Your task to perform on an android device: change notifications settings Image 0: 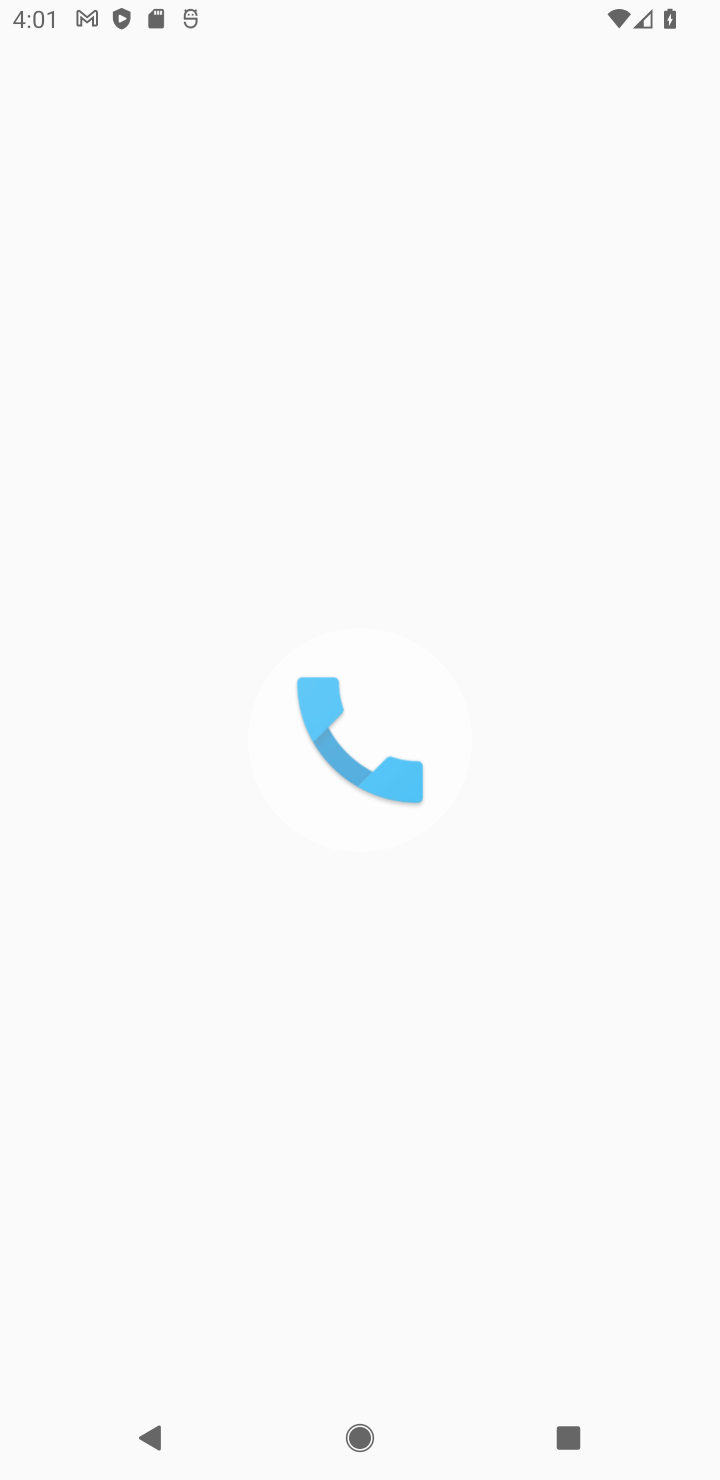
Step 0: click (586, 223)
Your task to perform on an android device: change notifications settings Image 1: 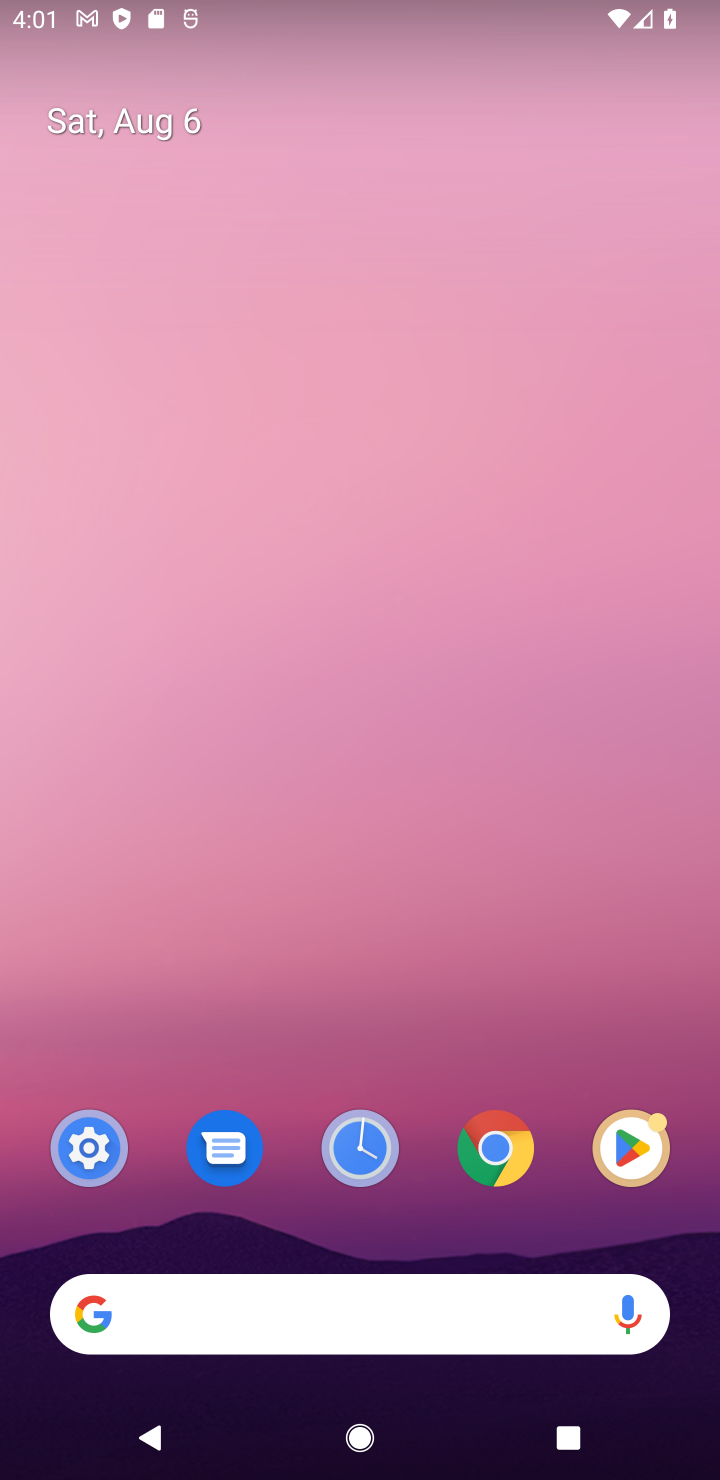
Step 1: drag from (327, 1067) to (524, 274)
Your task to perform on an android device: change notifications settings Image 2: 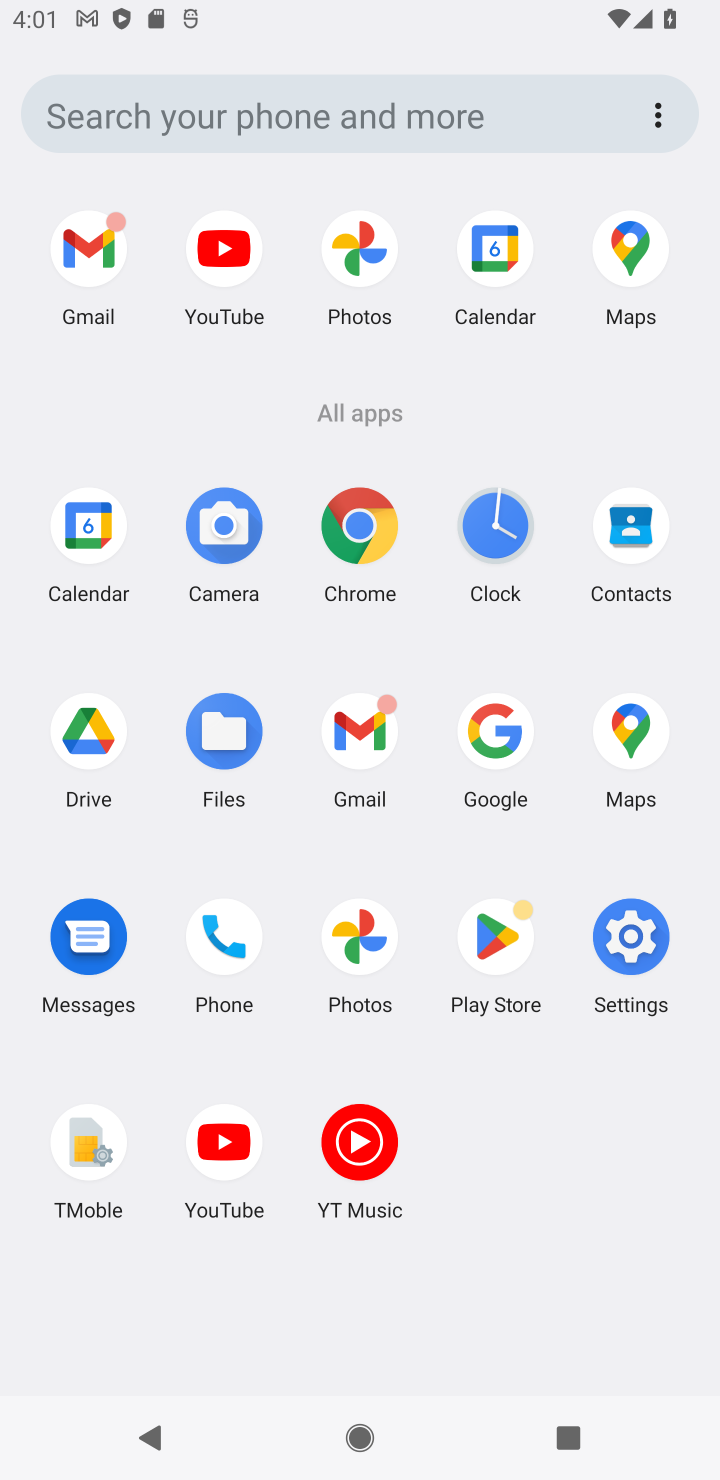
Step 2: click (617, 934)
Your task to perform on an android device: change notifications settings Image 3: 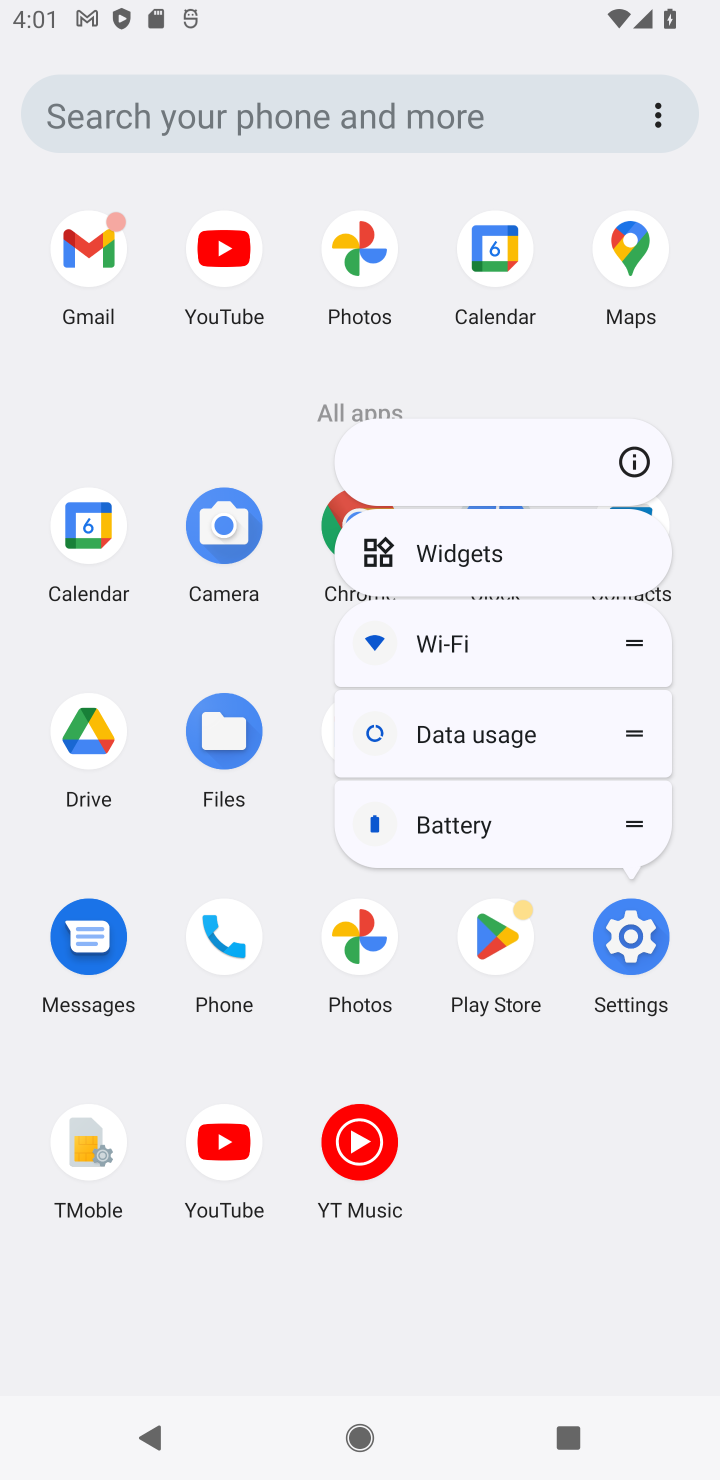
Step 3: click (633, 438)
Your task to perform on an android device: change notifications settings Image 4: 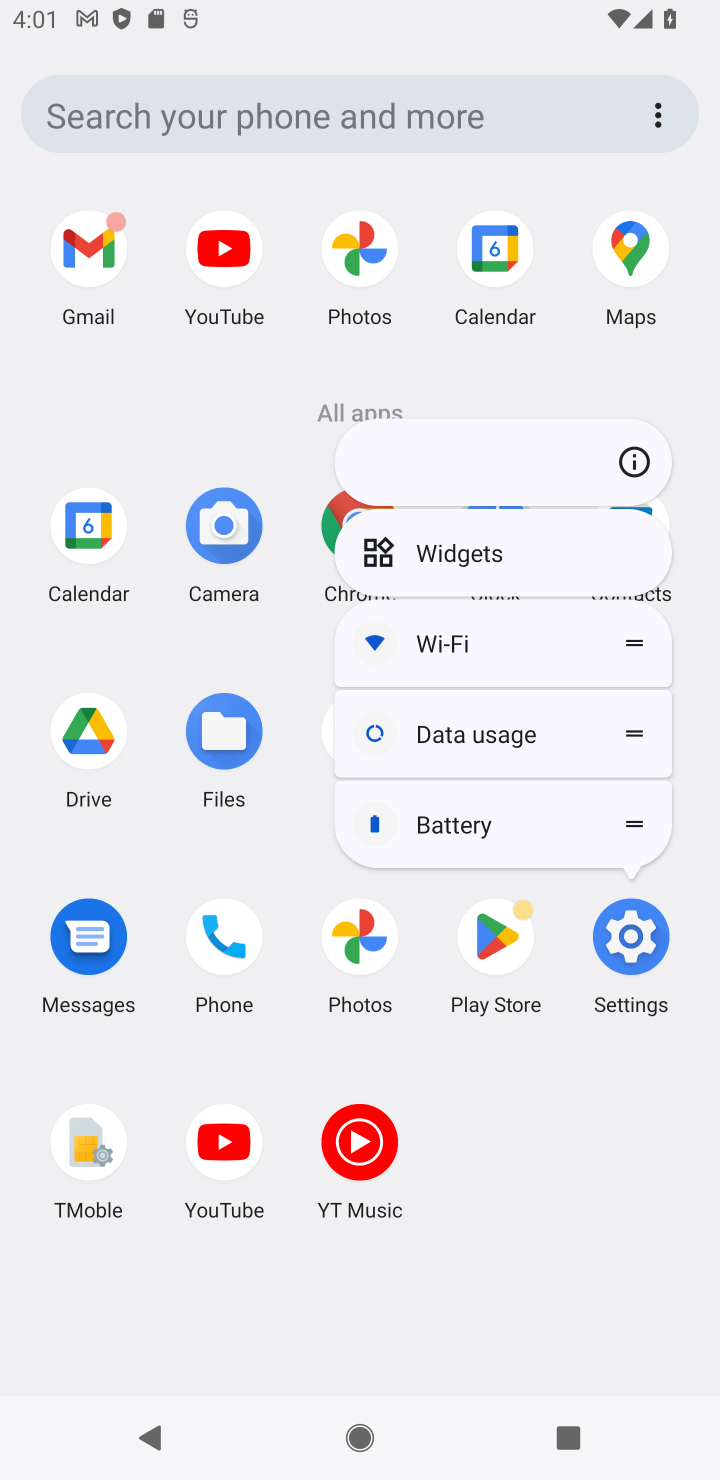
Step 4: click (648, 455)
Your task to perform on an android device: change notifications settings Image 5: 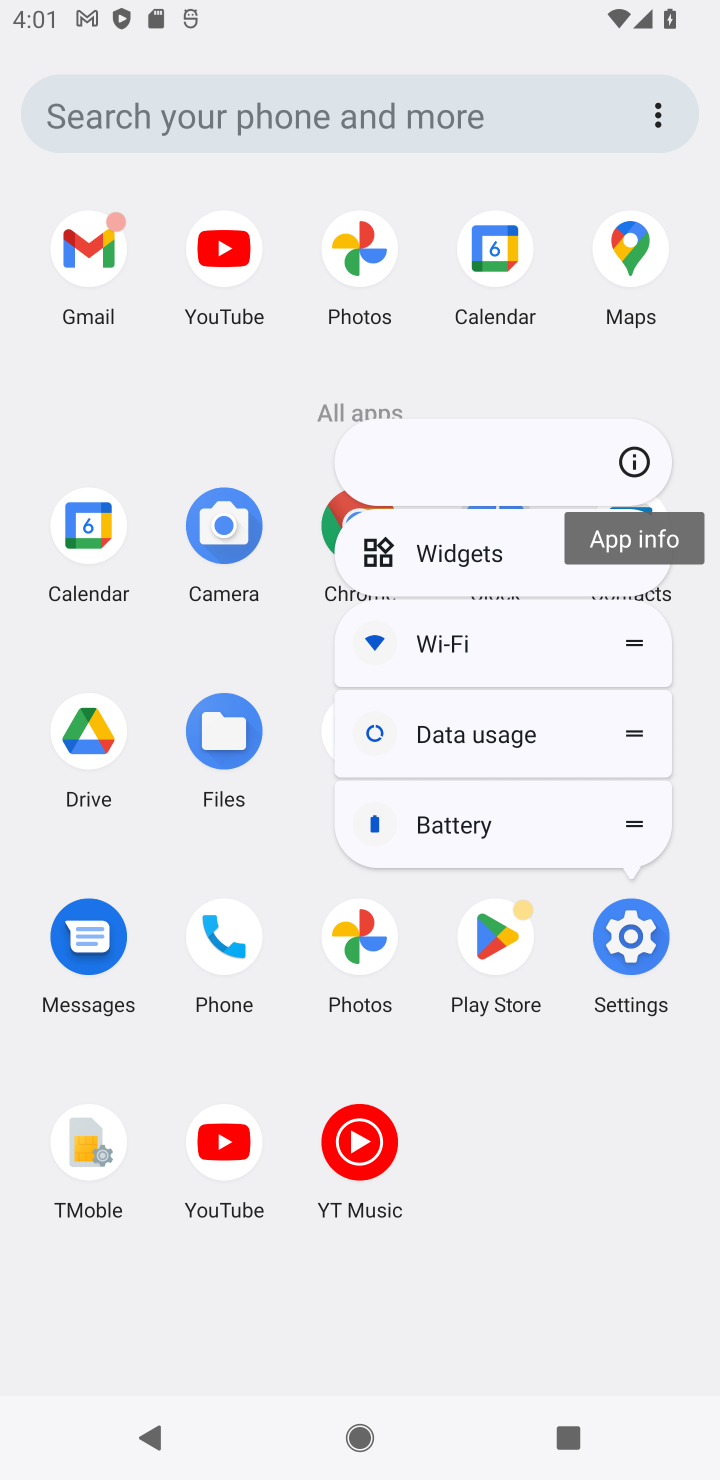
Step 5: click (631, 453)
Your task to perform on an android device: change notifications settings Image 6: 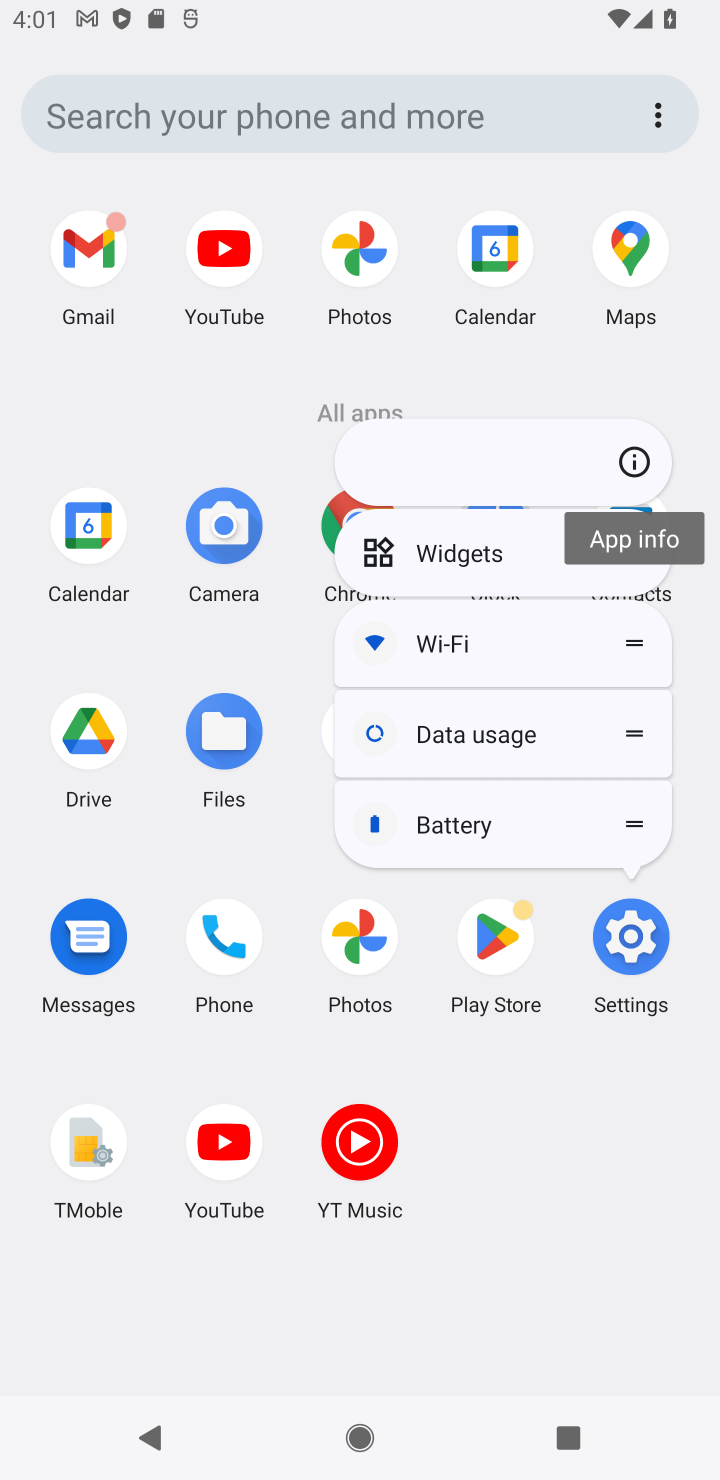
Step 6: click (631, 453)
Your task to perform on an android device: change notifications settings Image 7: 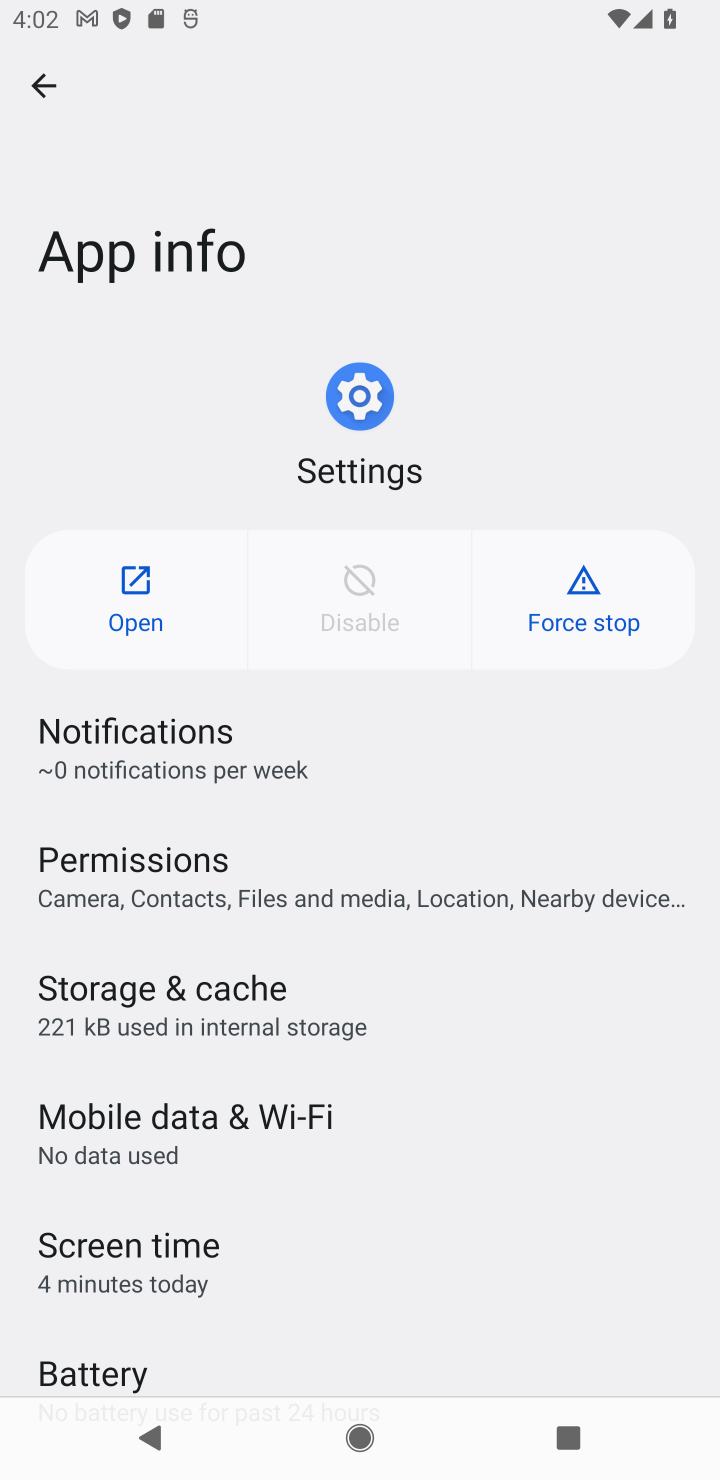
Step 7: click (122, 618)
Your task to perform on an android device: change notifications settings Image 8: 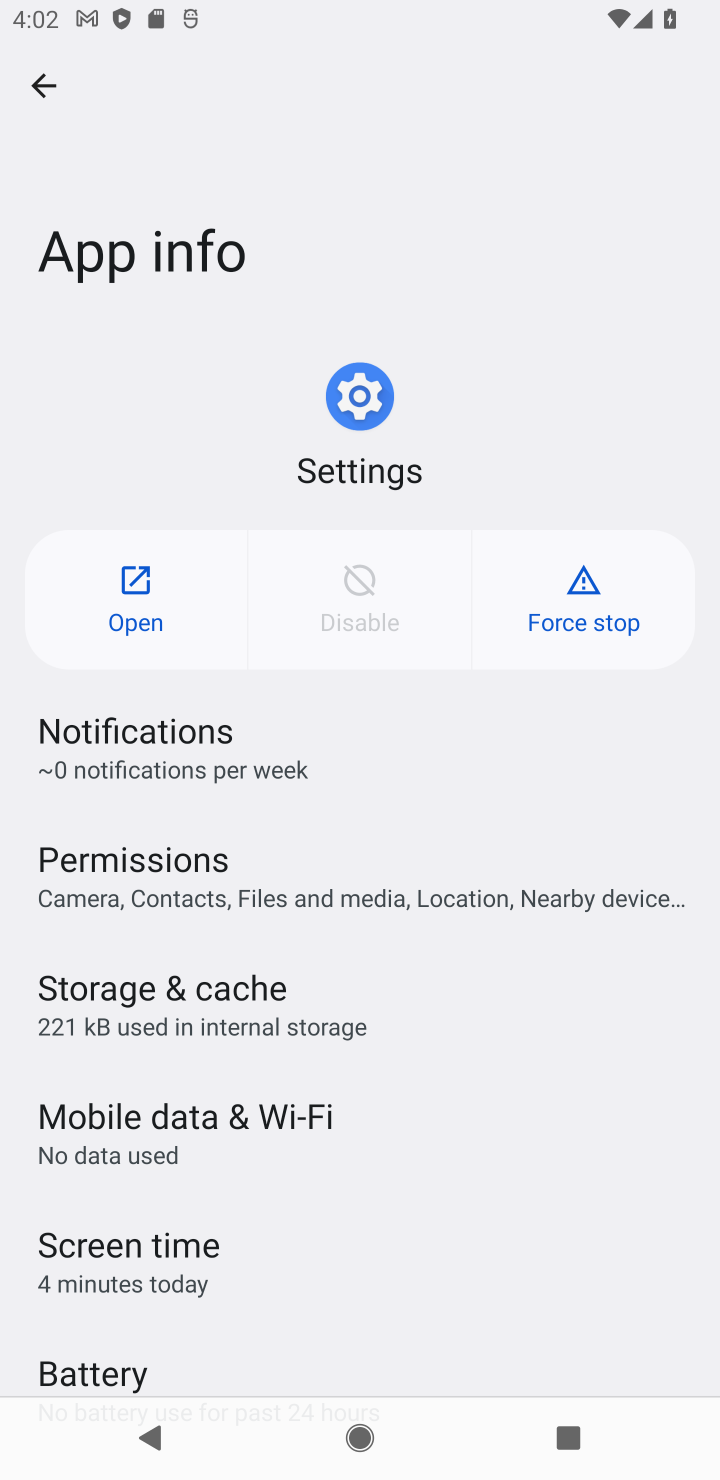
Step 8: click (163, 590)
Your task to perform on an android device: change notifications settings Image 9: 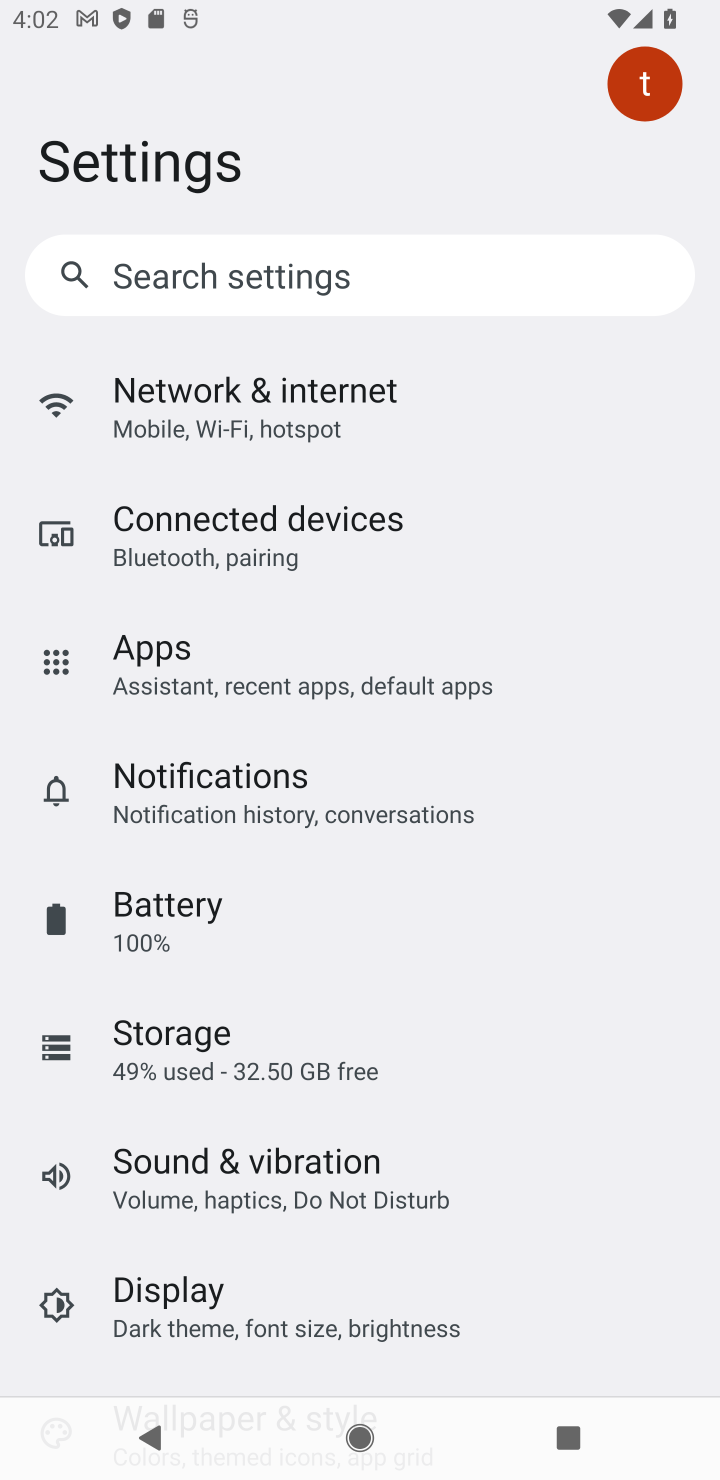
Step 9: click (296, 428)
Your task to perform on an android device: change notifications settings Image 10: 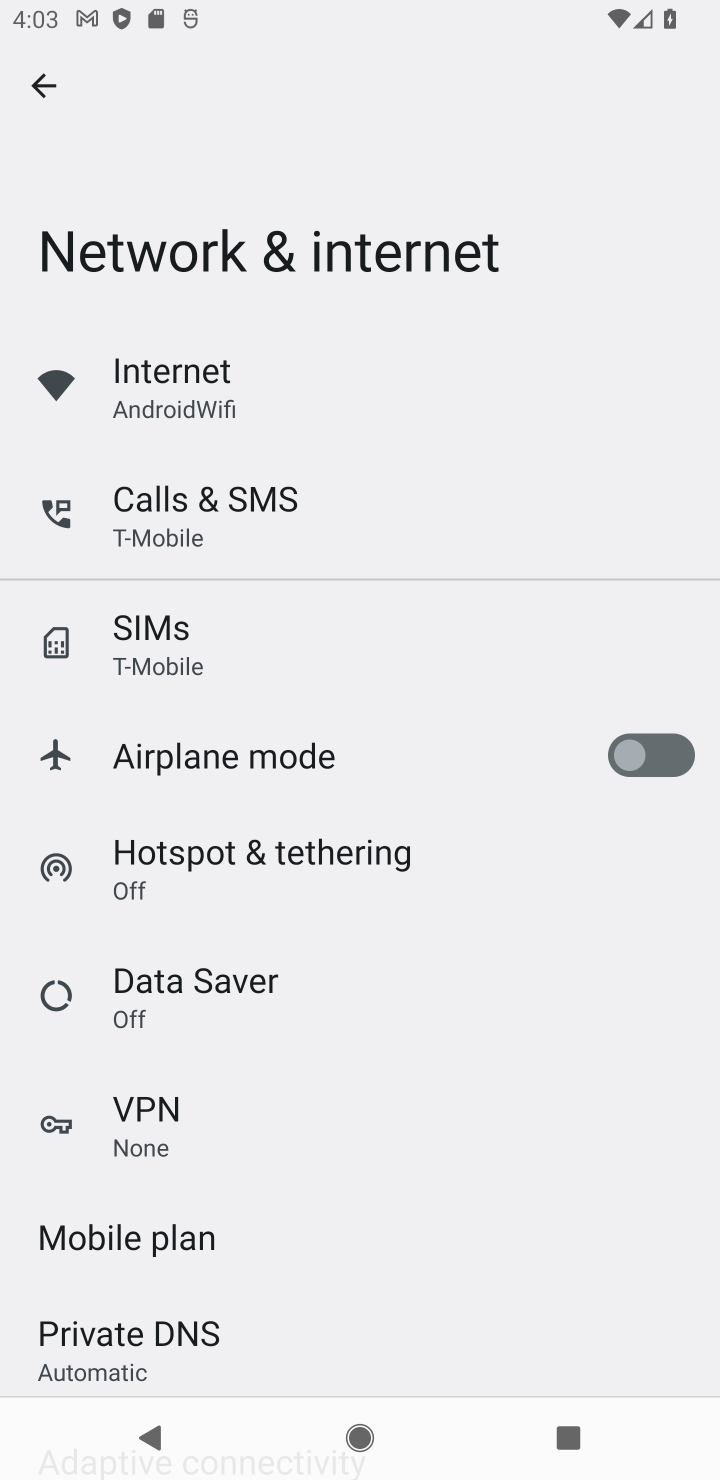
Step 10: drag from (265, 1223) to (293, 777)
Your task to perform on an android device: change notifications settings Image 11: 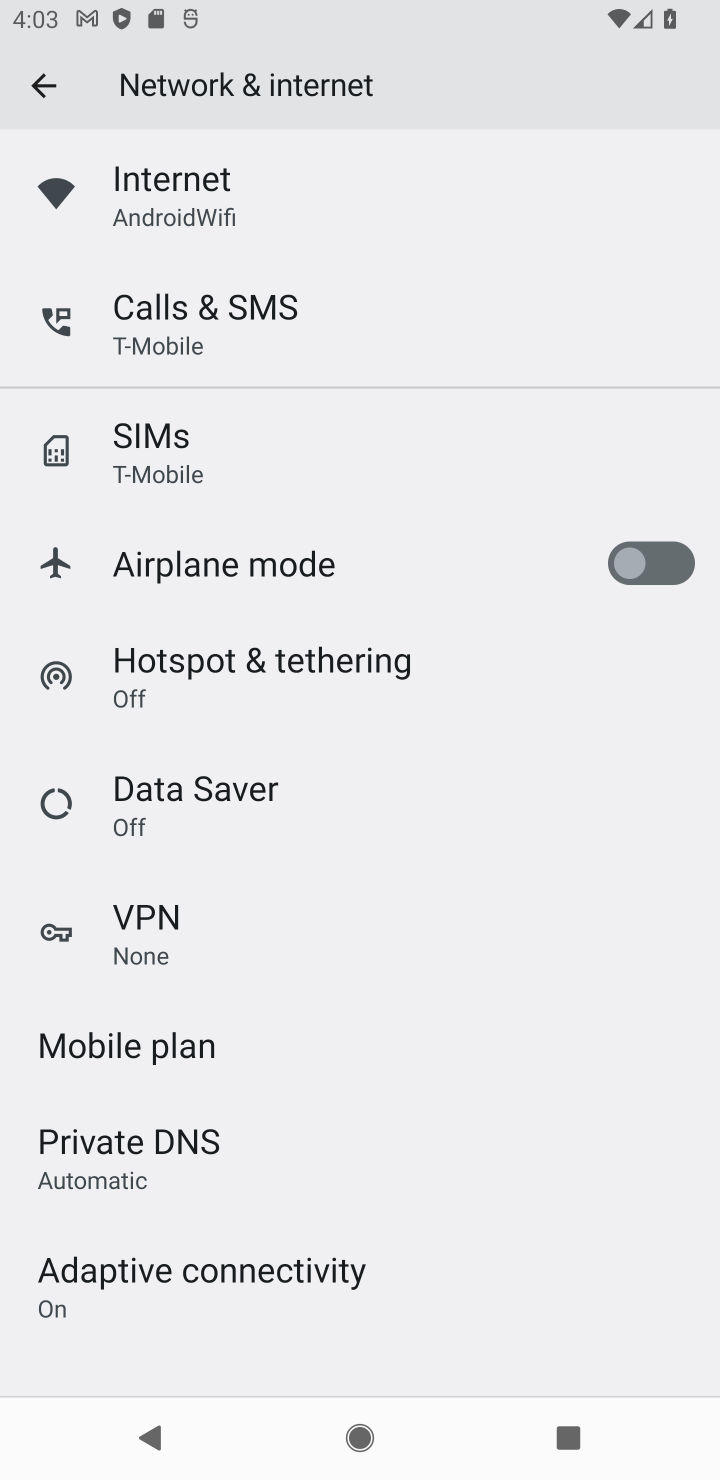
Step 11: press back button
Your task to perform on an android device: change notifications settings Image 12: 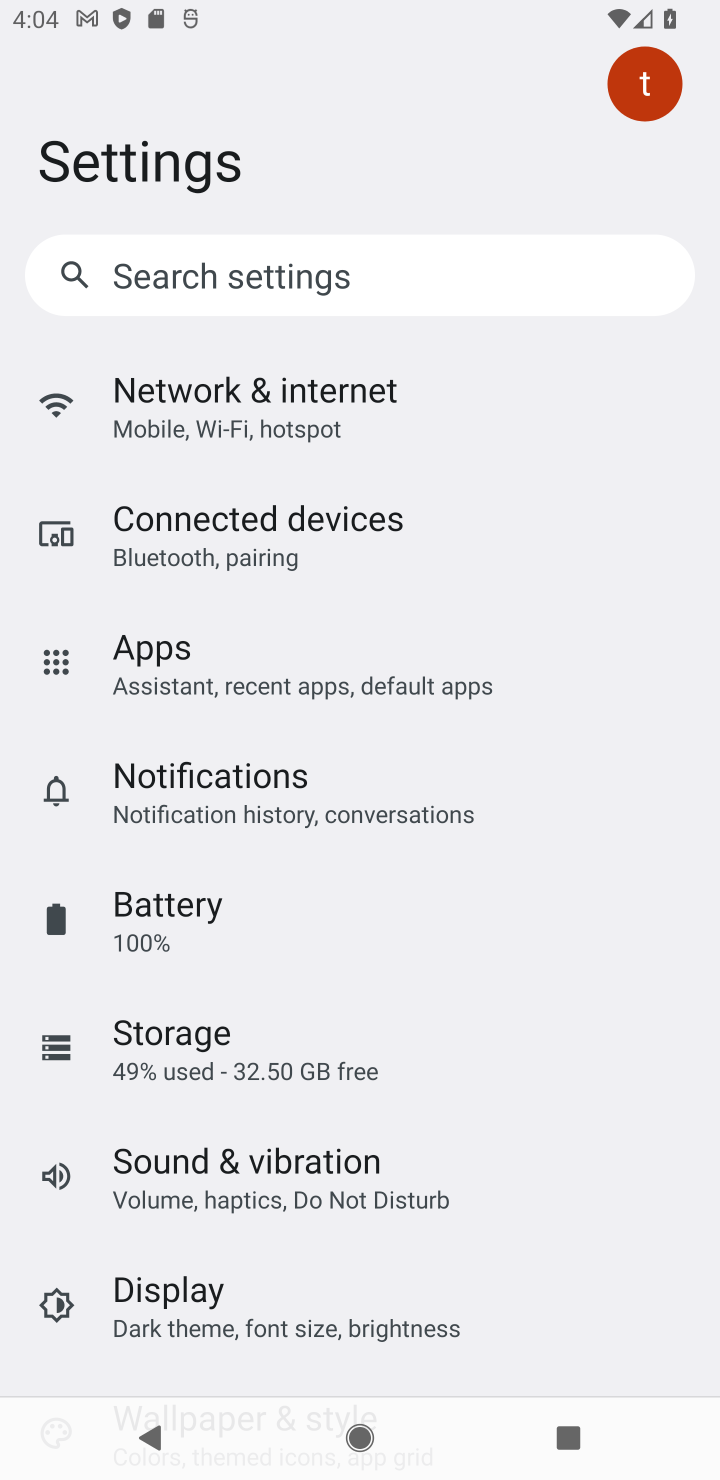
Step 12: click (269, 807)
Your task to perform on an android device: change notifications settings Image 13: 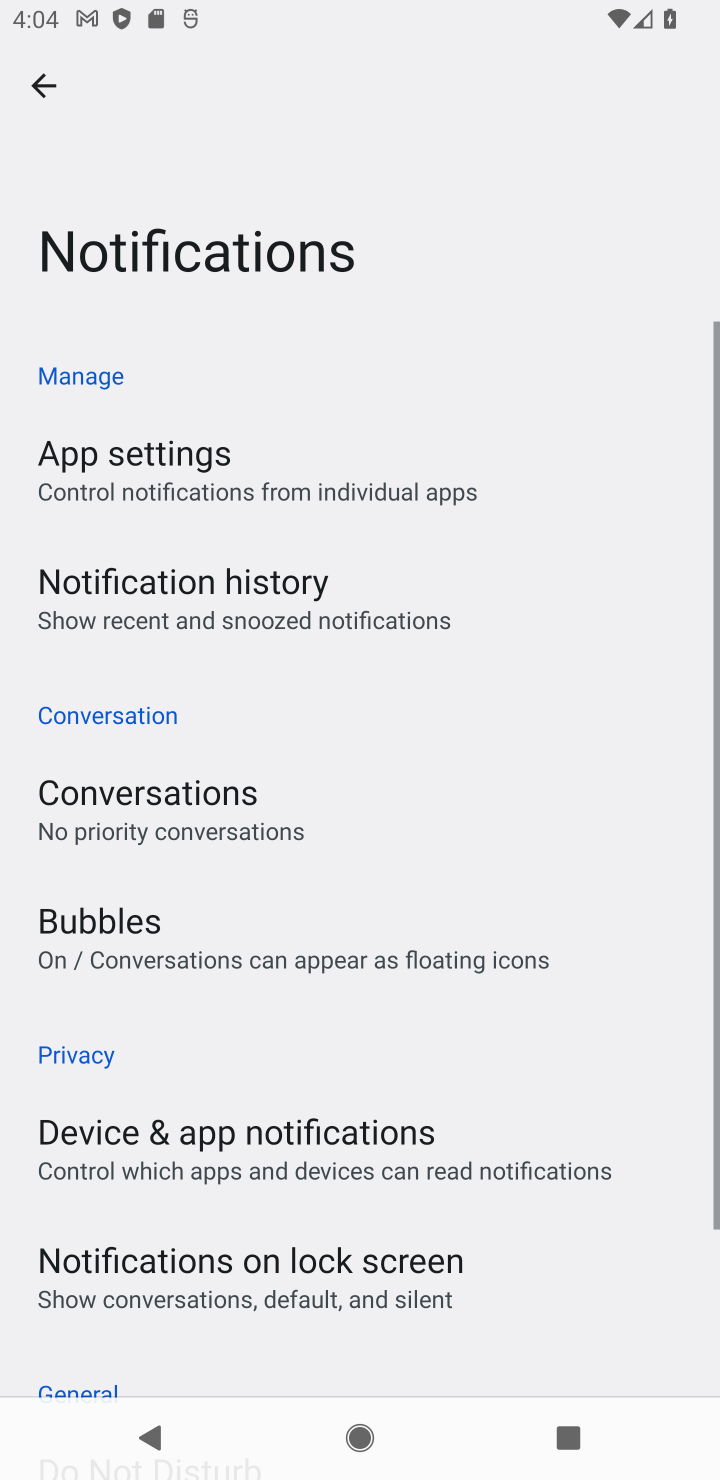
Step 13: click (363, 459)
Your task to perform on an android device: change notifications settings Image 14: 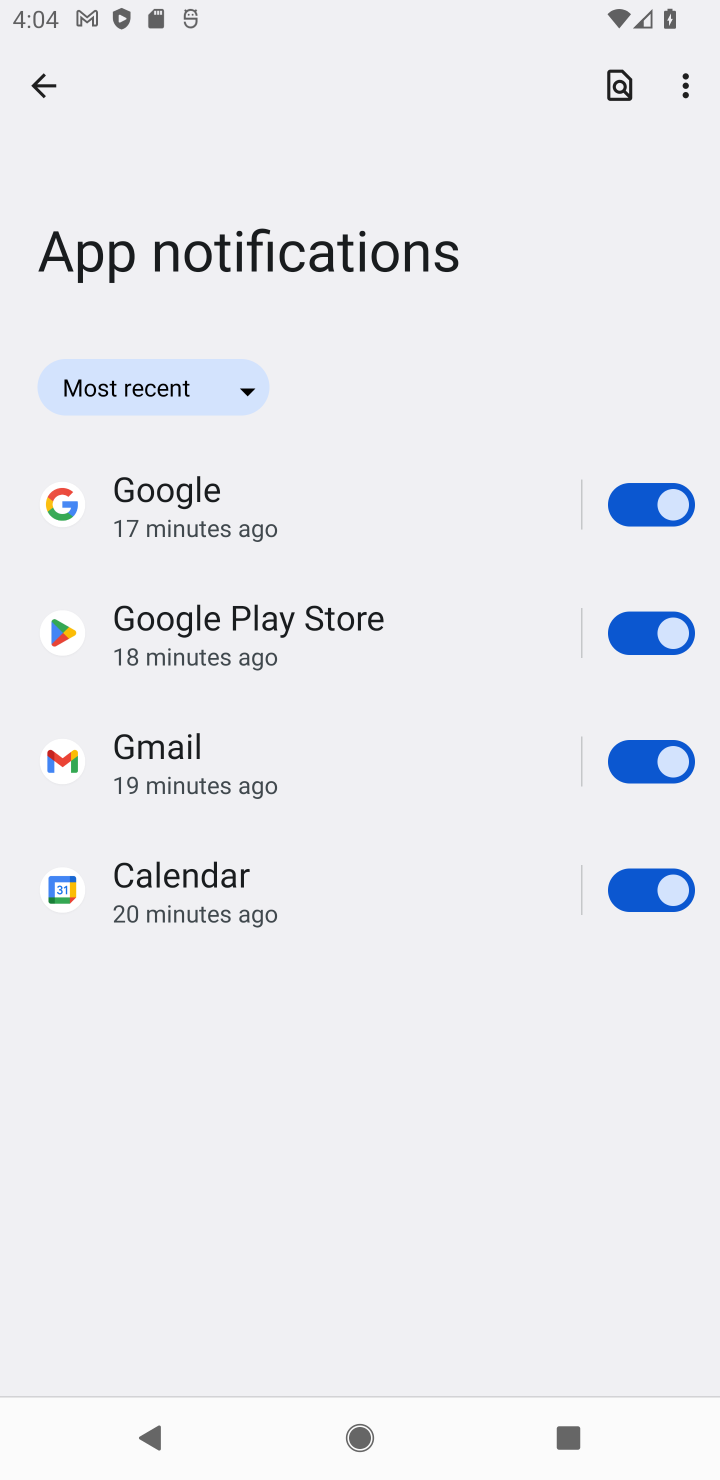
Step 14: task complete